Your task to perform on an android device: Open the calendar and show me this week's events? Image 0: 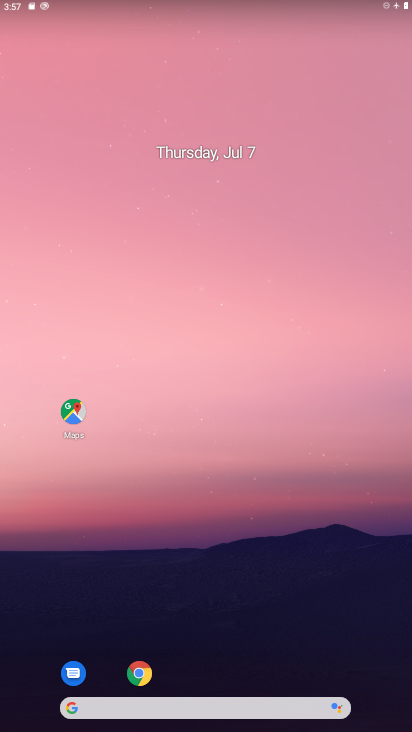
Step 0: press home button
Your task to perform on an android device: Open the calendar and show me this week's events? Image 1: 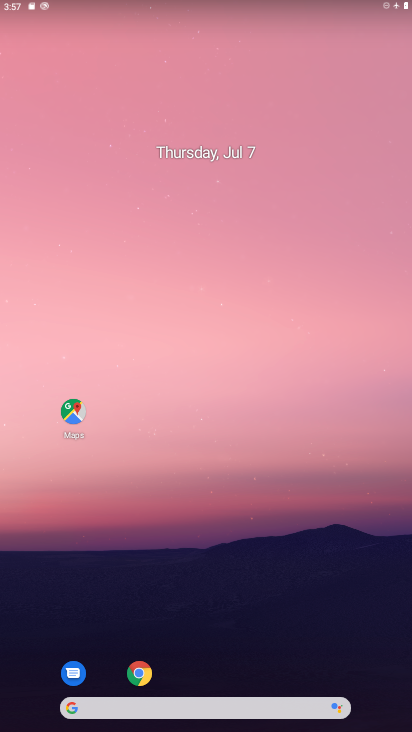
Step 1: drag from (205, 682) to (206, 86)
Your task to perform on an android device: Open the calendar and show me this week's events? Image 2: 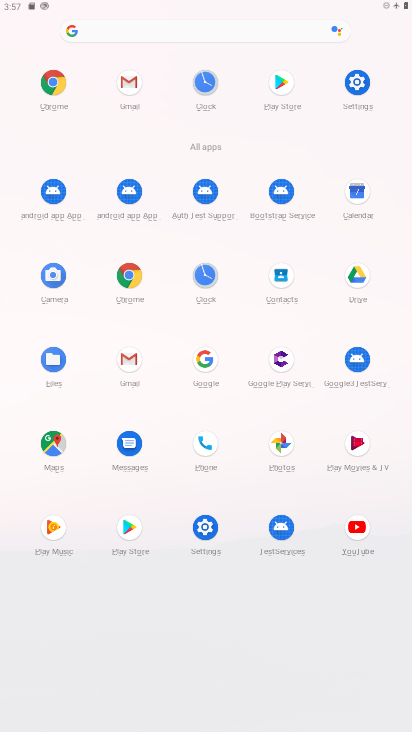
Step 2: click (357, 187)
Your task to perform on an android device: Open the calendar and show me this week's events? Image 3: 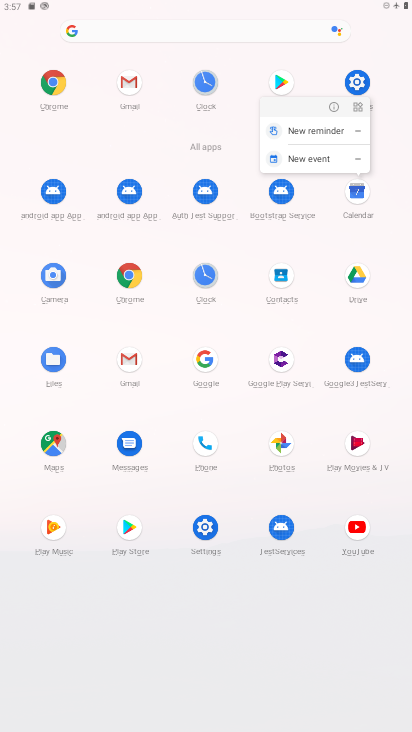
Step 3: click (355, 190)
Your task to perform on an android device: Open the calendar and show me this week's events? Image 4: 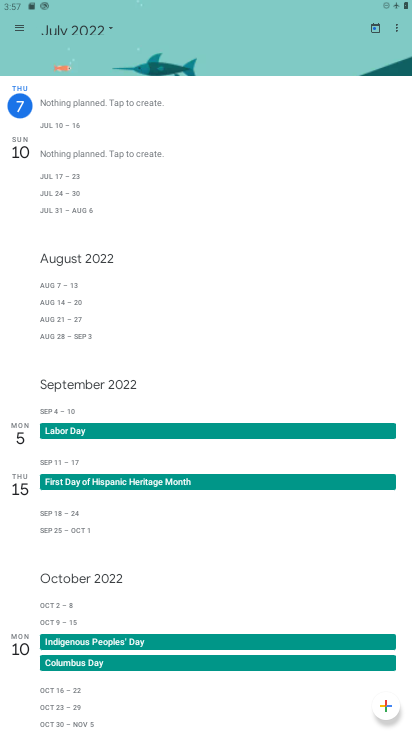
Step 4: click (15, 27)
Your task to perform on an android device: Open the calendar and show me this week's events? Image 5: 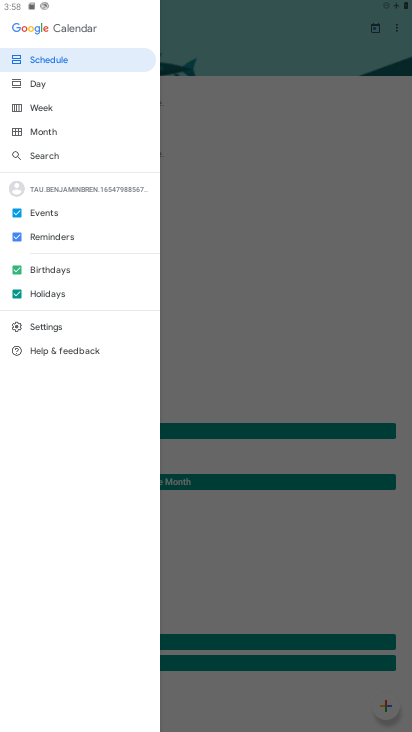
Step 5: click (41, 110)
Your task to perform on an android device: Open the calendar and show me this week's events? Image 6: 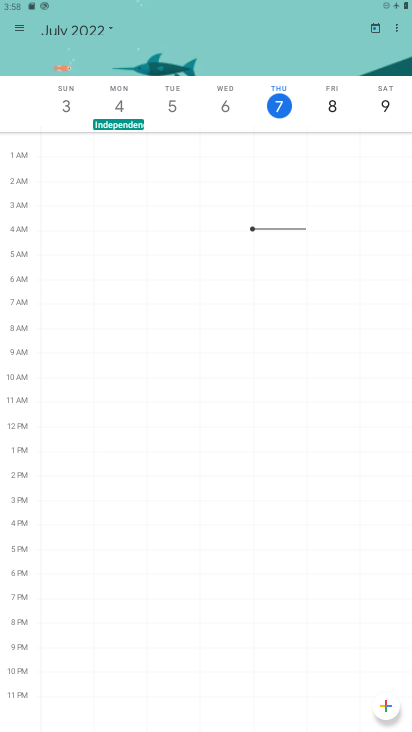
Step 6: click (11, 20)
Your task to perform on an android device: Open the calendar and show me this week's events? Image 7: 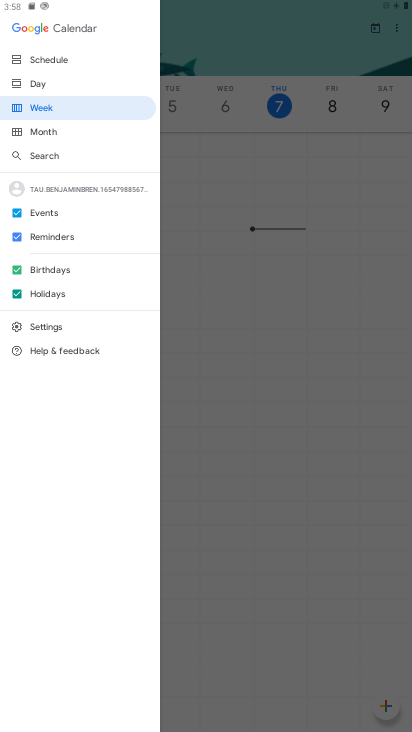
Step 7: click (17, 291)
Your task to perform on an android device: Open the calendar and show me this week's events? Image 8: 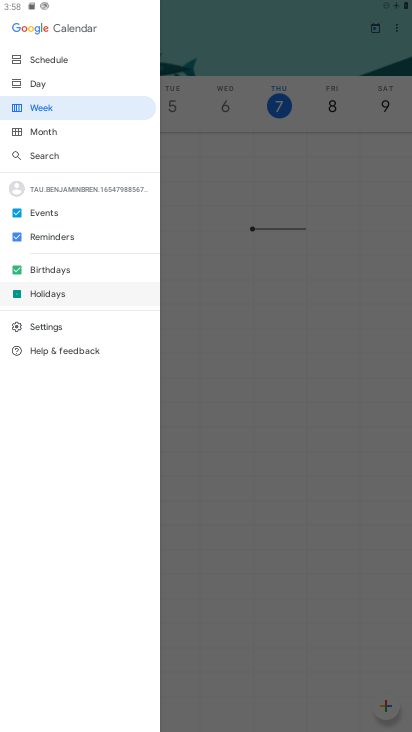
Step 8: click (11, 257)
Your task to perform on an android device: Open the calendar and show me this week's events? Image 9: 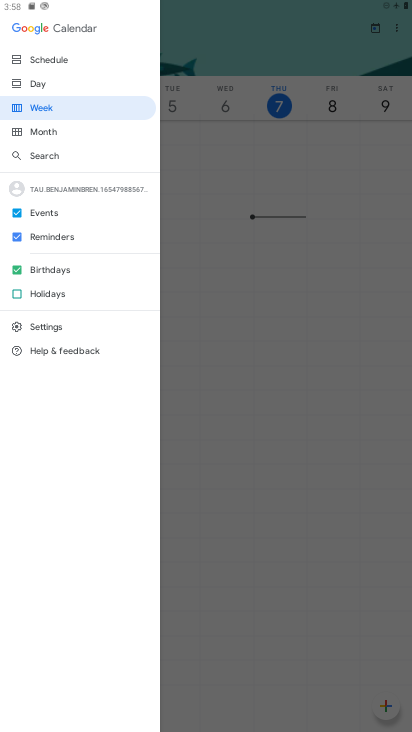
Step 9: click (17, 230)
Your task to perform on an android device: Open the calendar and show me this week's events? Image 10: 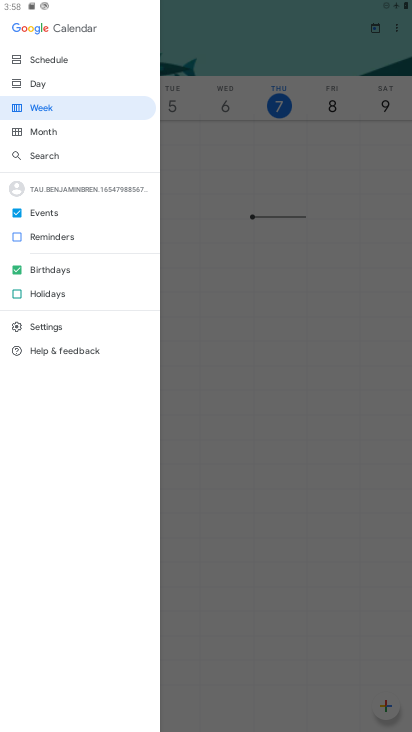
Step 10: click (17, 259)
Your task to perform on an android device: Open the calendar and show me this week's events? Image 11: 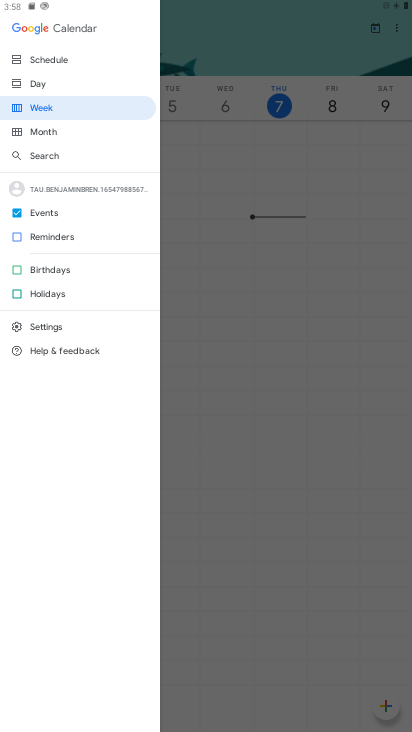
Step 11: click (31, 58)
Your task to perform on an android device: Open the calendar and show me this week's events? Image 12: 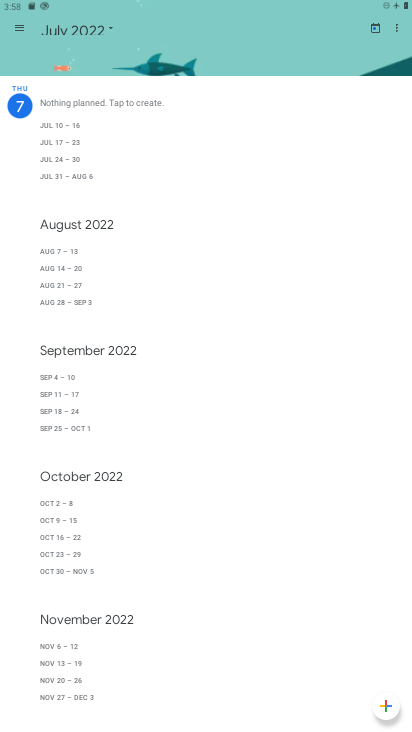
Step 12: task complete